Your task to perform on an android device: Open privacy settings Image 0: 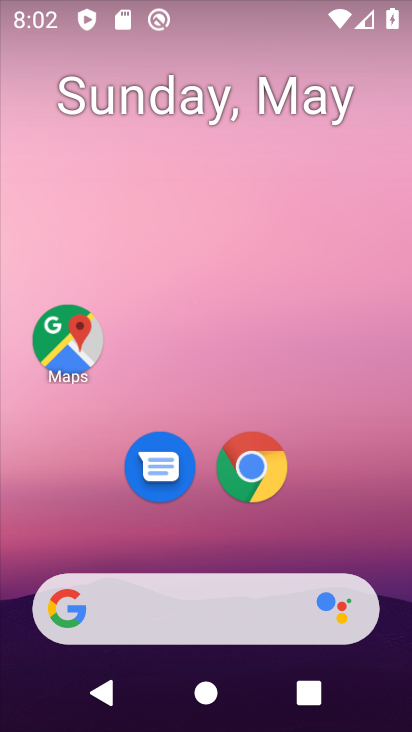
Step 0: drag from (206, 546) to (182, 98)
Your task to perform on an android device: Open privacy settings Image 1: 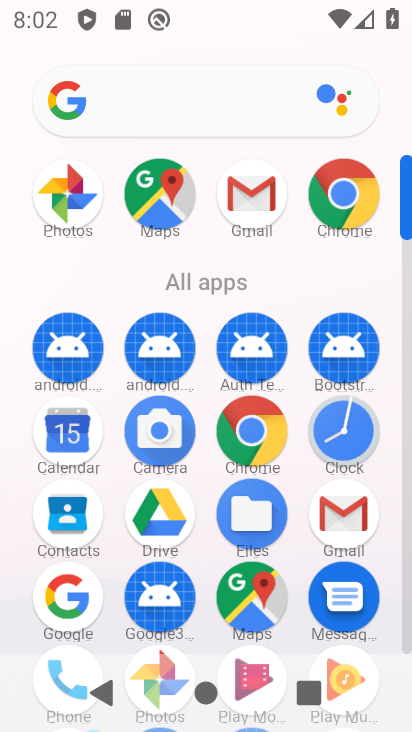
Step 1: drag from (209, 549) to (216, 147)
Your task to perform on an android device: Open privacy settings Image 2: 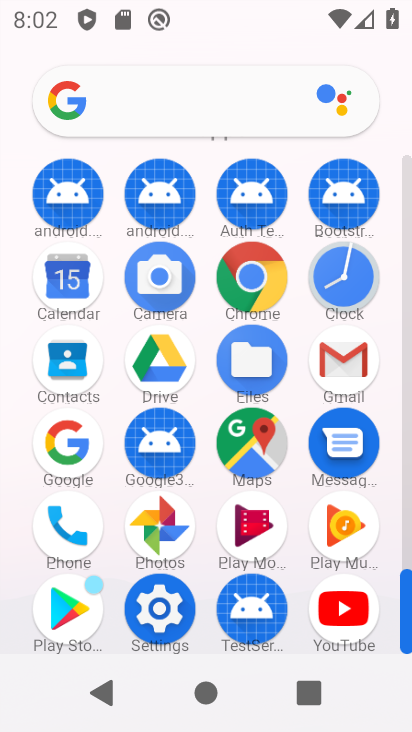
Step 2: click (169, 625)
Your task to perform on an android device: Open privacy settings Image 3: 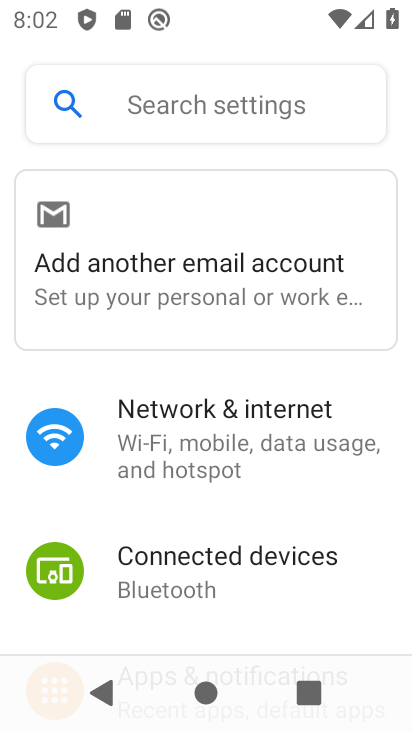
Step 3: drag from (169, 625) to (276, 4)
Your task to perform on an android device: Open privacy settings Image 4: 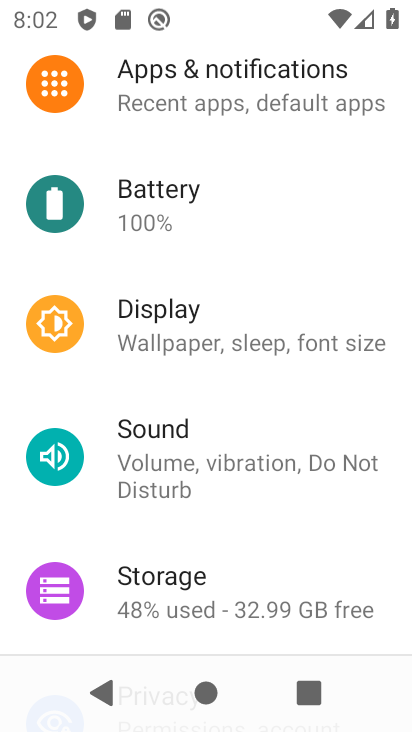
Step 4: drag from (215, 514) to (263, 87)
Your task to perform on an android device: Open privacy settings Image 5: 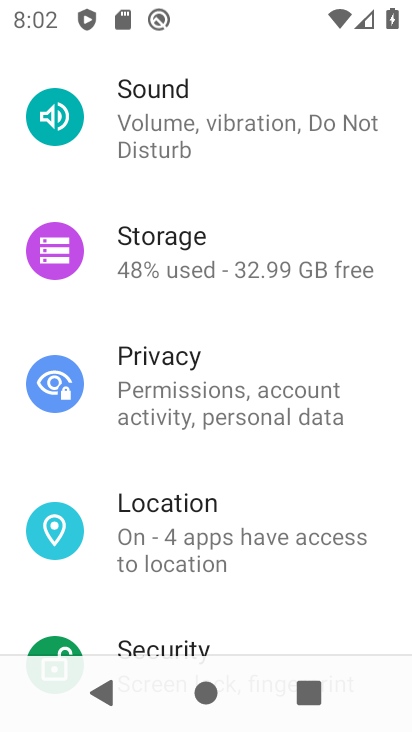
Step 5: click (208, 381)
Your task to perform on an android device: Open privacy settings Image 6: 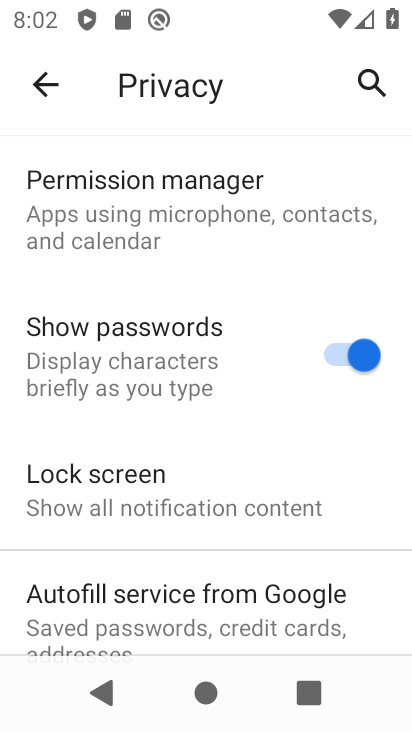
Step 6: task complete